Your task to perform on an android device: Go to sound settings Image 0: 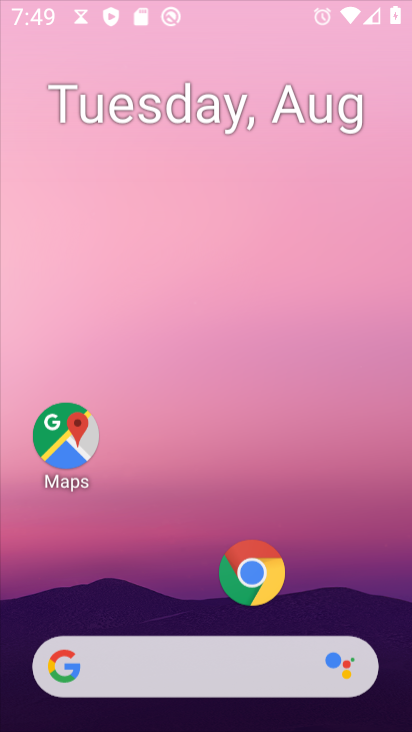
Step 0: press home button
Your task to perform on an android device: Go to sound settings Image 1: 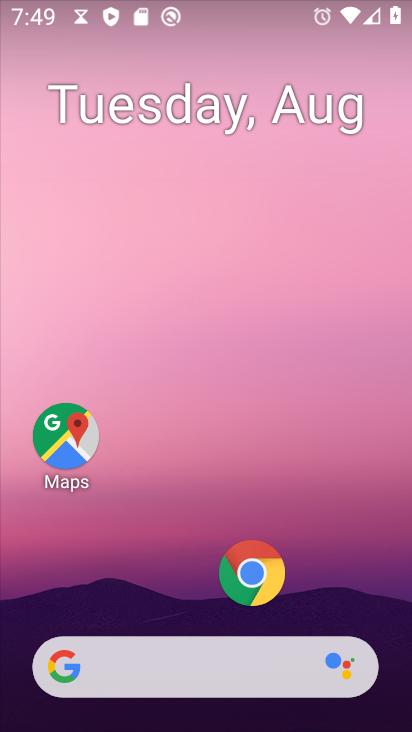
Step 1: click (226, 62)
Your task to perform on an android device: Go to sound settings Image 2: 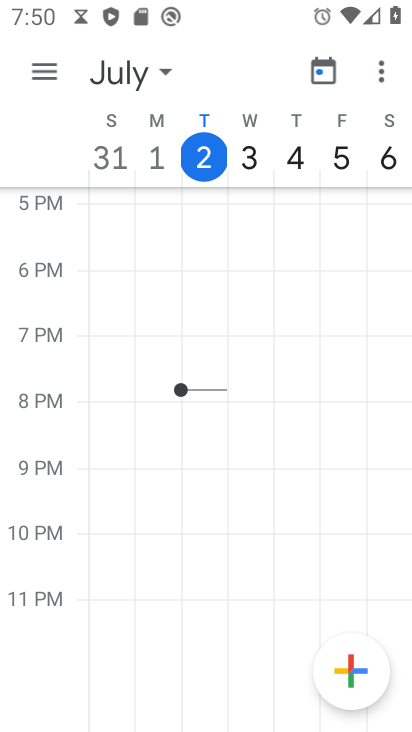
Step 2: press home button
Your task to perform on an android device: Go to sound settings Image 3: 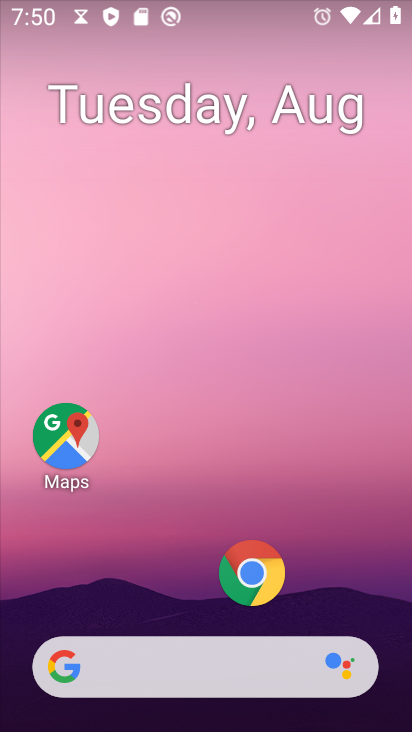
Step 3: drag from (182, 605) to (203, 21)
Your task to perform on an android device: Go to sound settings Image 4: 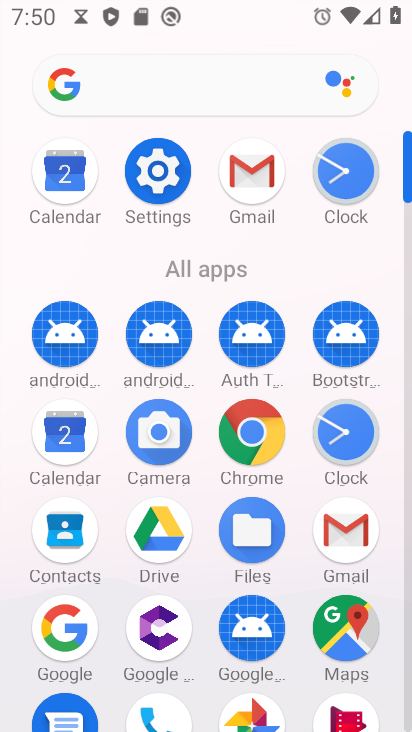
Step 4: click (154, 169)
Your task to perform on an android device: Go to sound settings Image 5: 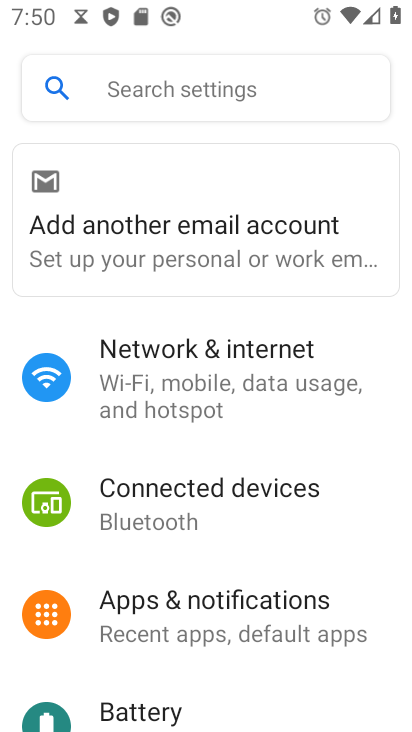
Step 5: drag from (150, 675) to (178, 66)
Your task to perform on an android device: Go to sound settings Image 6: 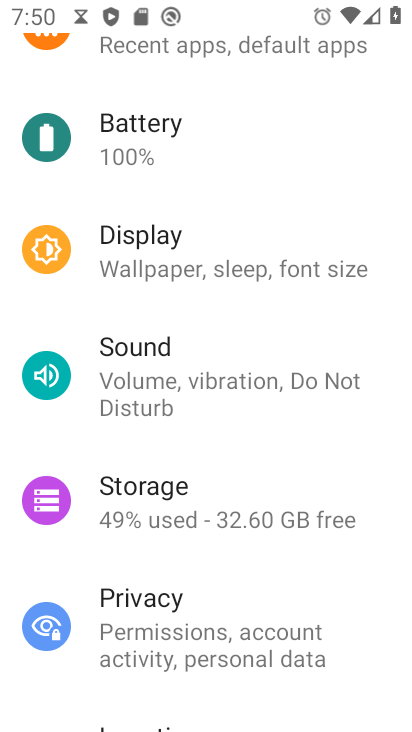
Step 6: click (199, 355)
Your task to perform on an android device: Go to sound settings Image 7: 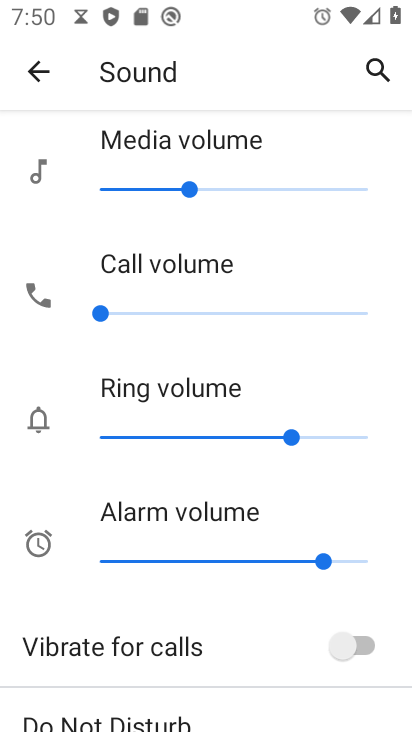
Step 7: drag from (209, 692) to (241, 189)
Your task to perform on an android device: Go to sound settings Image 8: 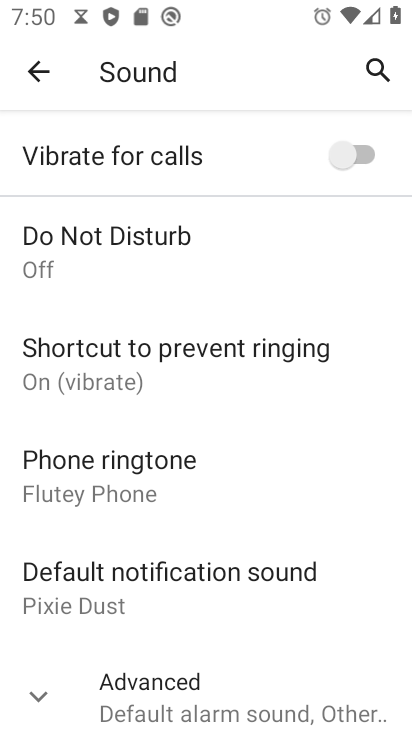
Step 8: click (37, 690)
Your task to perform on an android device: Go to sound settings Image 9: 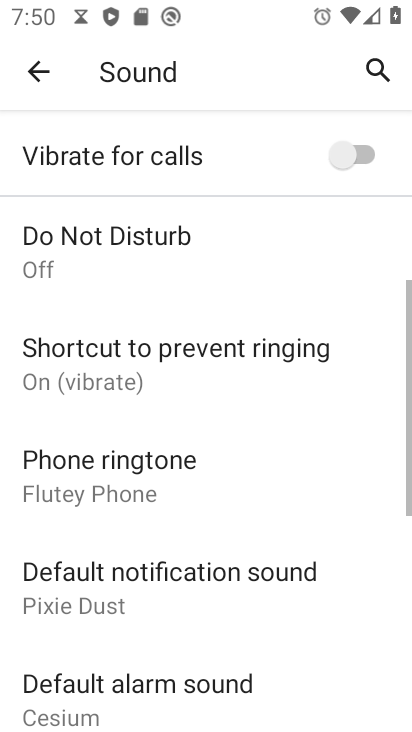
Step 9: task complete